Your task to perform on an android device: Open accessibility settings Image 0: 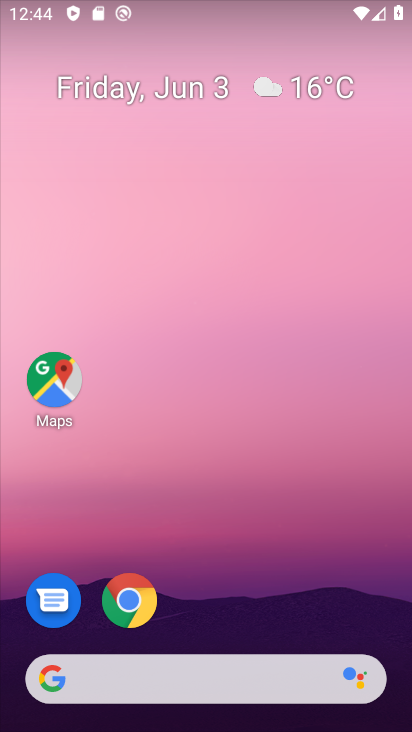
Step 0: drag from (231, 571) to (237, 145)
Your task to perform on an android device: Open accessibility settings Image 1: 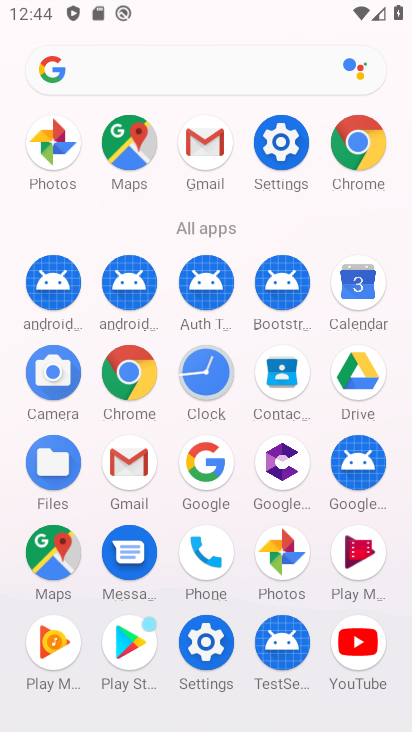
Step 1: click (284, 154)
Your task to perform on an android device: Open accessibility settings Image 2: 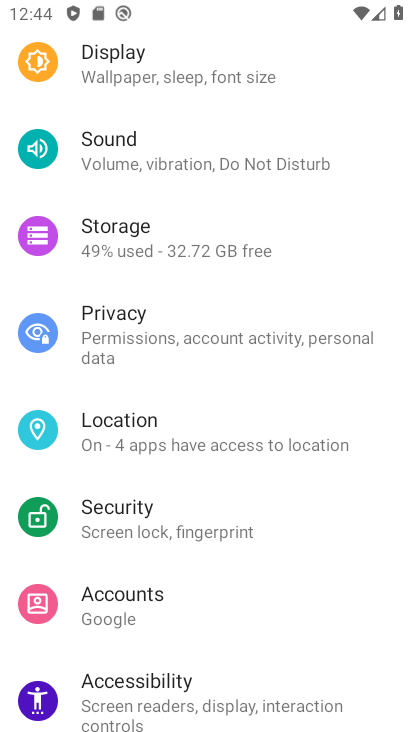
Step 2: drag from (191, 574) to (200, 315)
Your task to perform on an android device: Open accessibility settings Image 3: 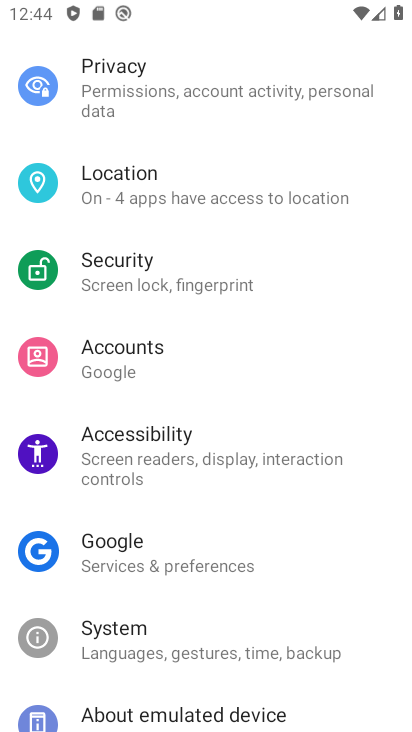
Step 3: click (199, 454)
Your task to perform on an android device: Open accessibility settings Image 4: 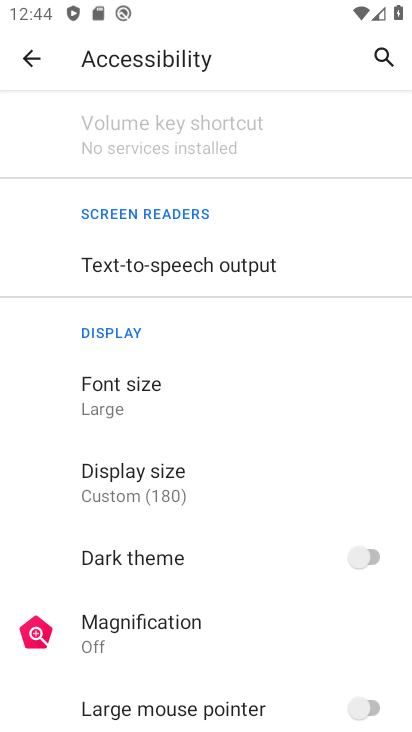
Step 4: task complete